Your task to perform on an android device: What's the news about the US economy? Image 0: 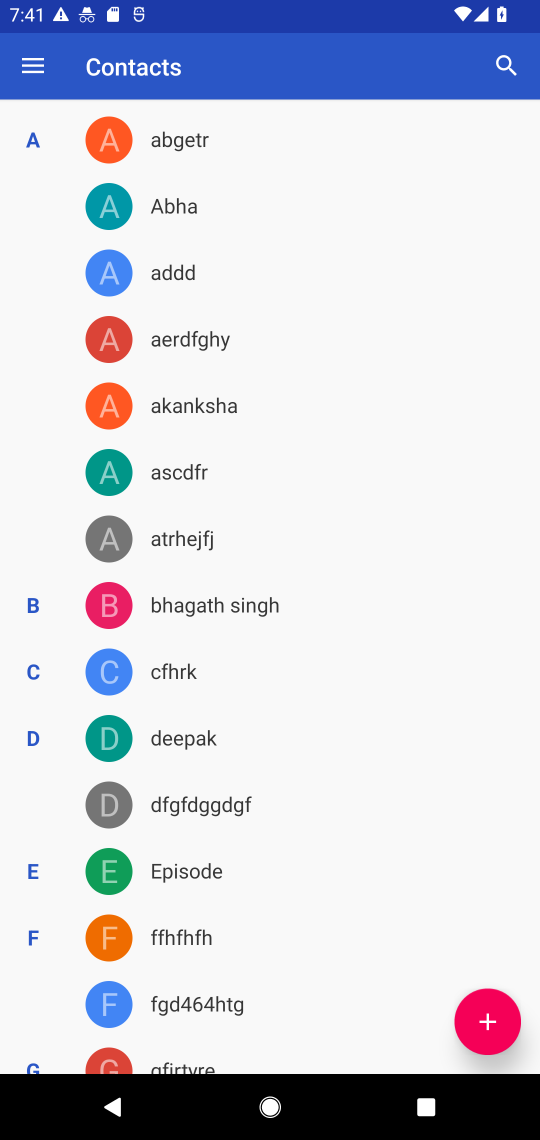
Step 0: press home button
Your task to perform on an android device: What's the news about the US economy? Image 1: 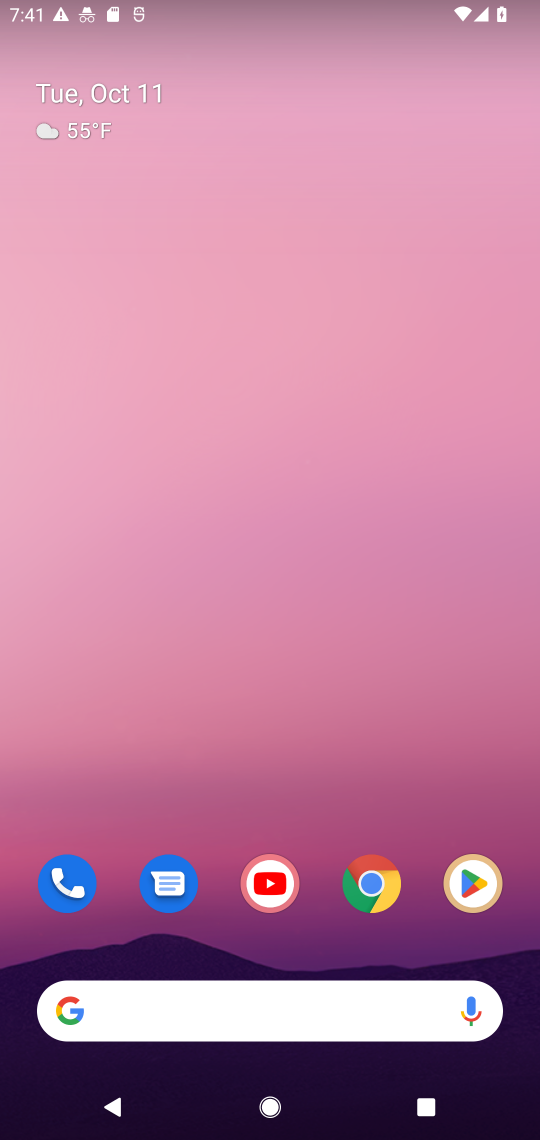
Step 1: drag from (322, 944) to (331, 164)
Your task to perform on an android device: What's the news about the US economy? Image 2: 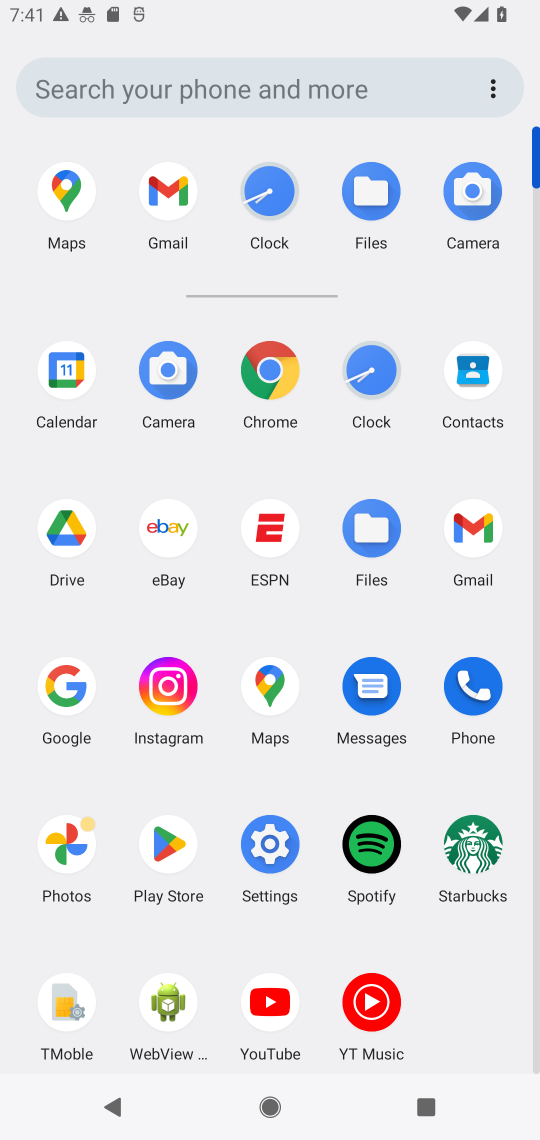
Step 2: click (274, 376)
Your task to perform on an android device: What's the news about the US economy? Image 3: 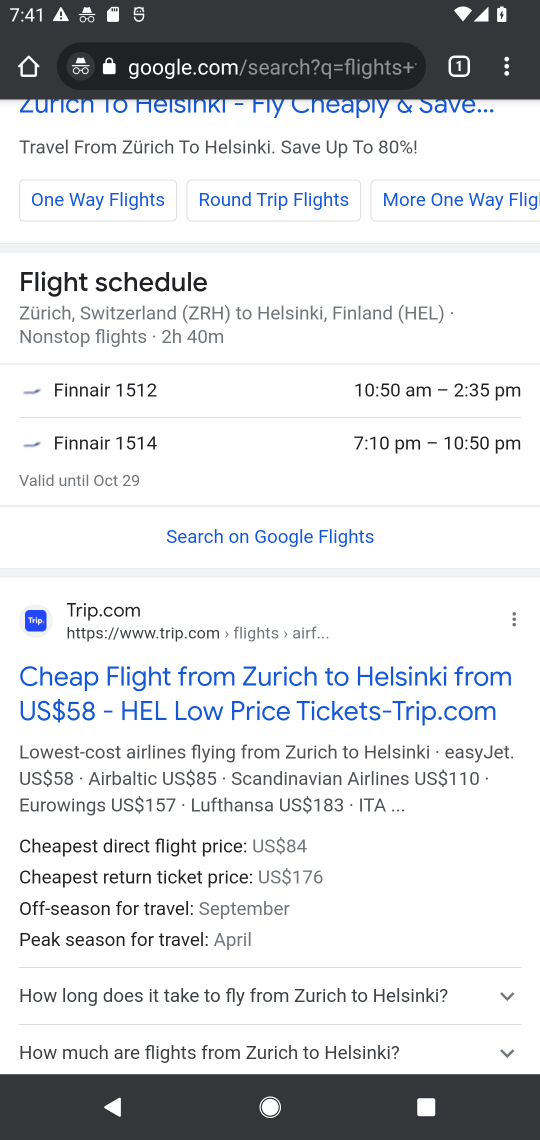
Step 3: click (230, 80)
Your task to perform on an android device: What's the news about the US economy? Image 4: 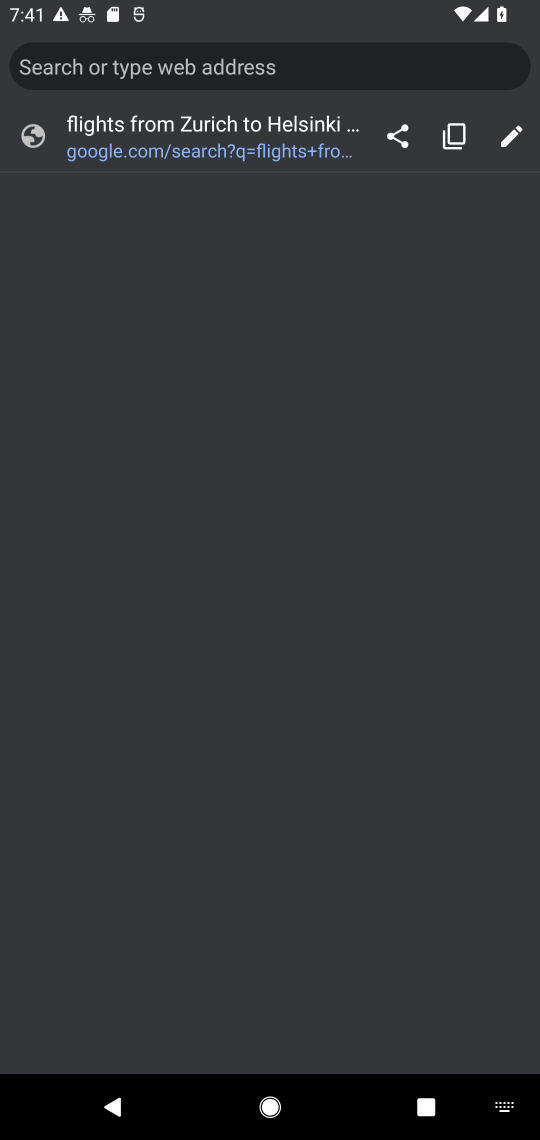
Step 4: type "What's the news about the US economy?"
Your task to perform on an android device: What's the news about the US economy? Image 5: 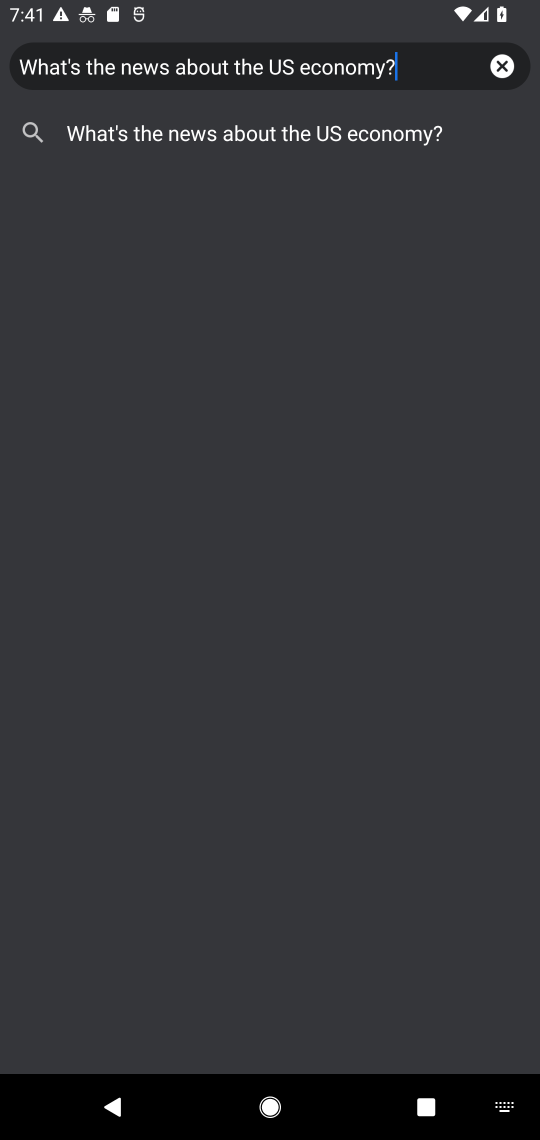
Step 5: press enter
Your task to perform on an android device: What's the news about the US economy? Image 6: 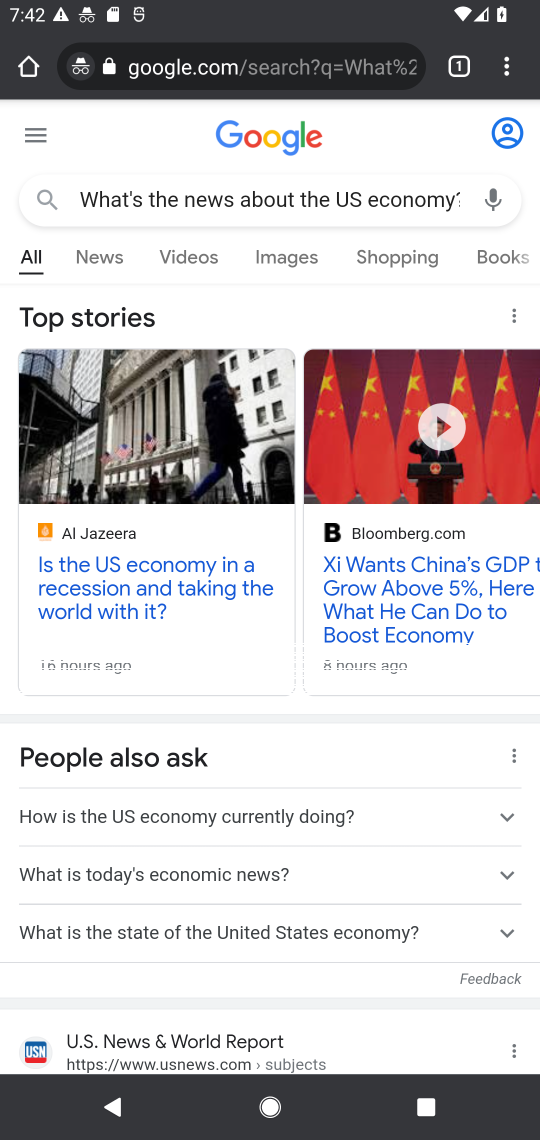
Step 6: drag from (255, 862) to (281, 259)
Your task to perform on an android device: What's the news about the US economy? Image 7: 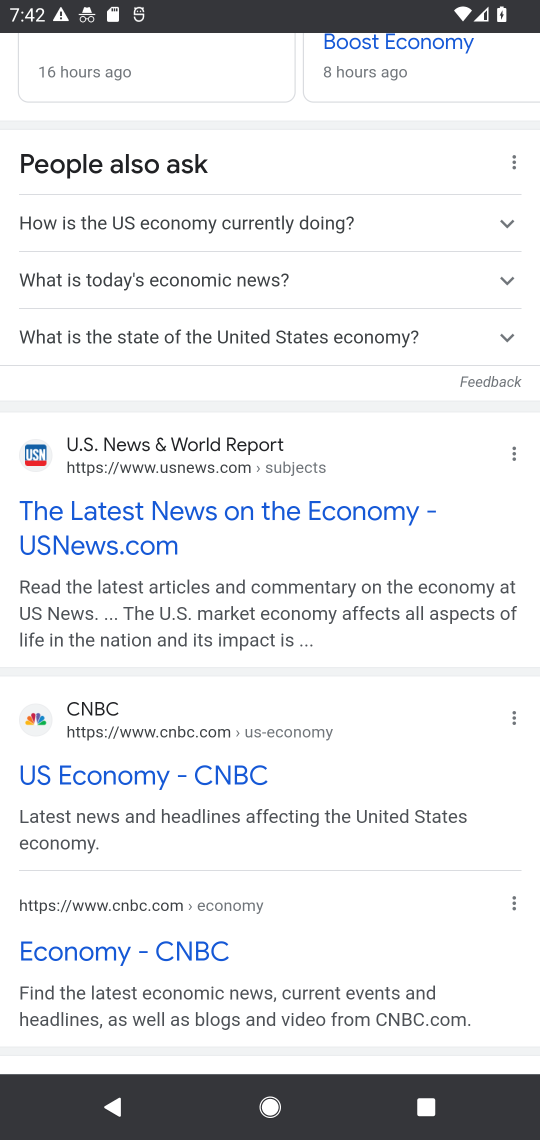
Step 7: click (158, 521)
Your task to perform on an android device: What's the news about the US economy? Image 8: 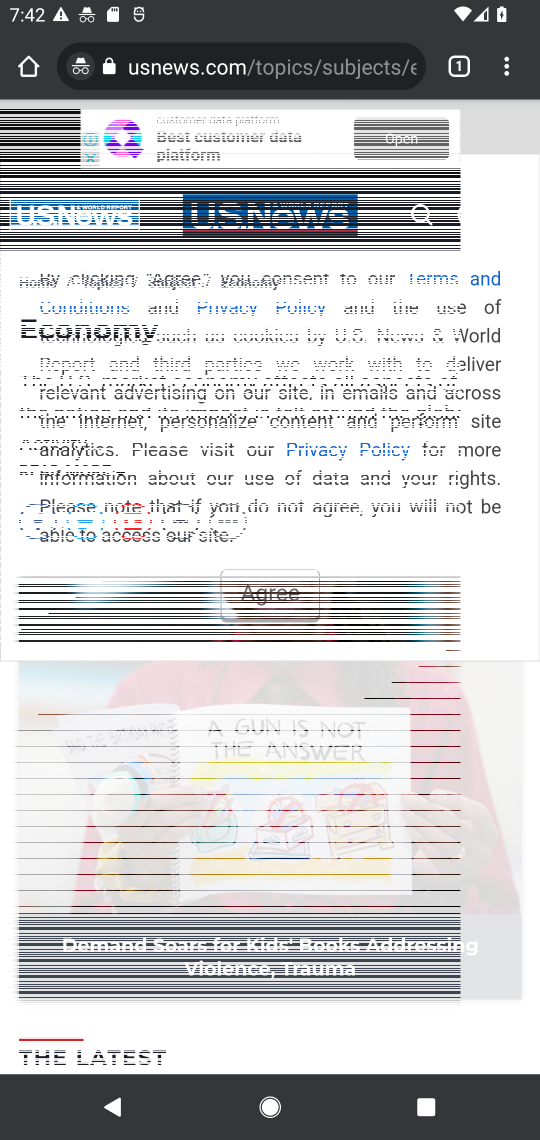
Step 8: drag from (200, 918) to (258, 291)
Your task to perform on an android device: What's the news about the US economy? Image 9: 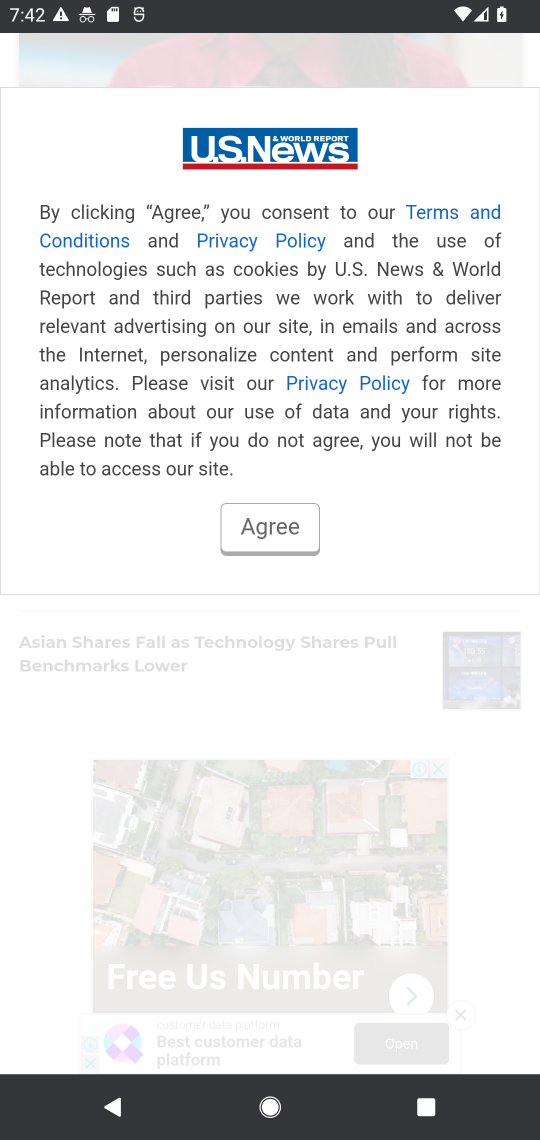
Step 9: drag from (316, 656) to (320, 277)
Your task to perform on an android device: What's the news about the US economy? Image 10: 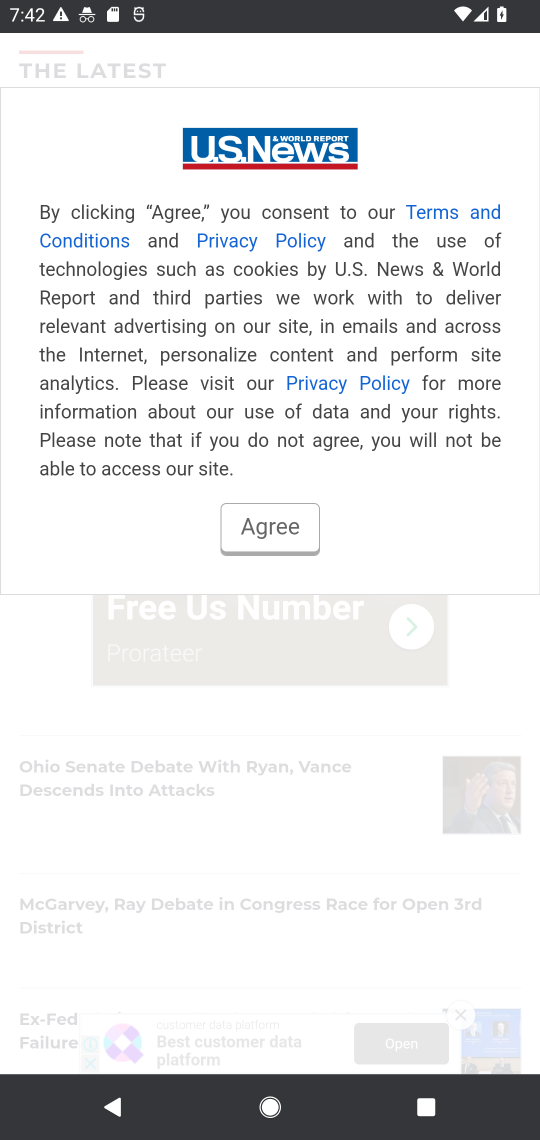
Step 10: click (277, 498)
Your task to perform on an android device: What's the news about the US economy? Image 11: 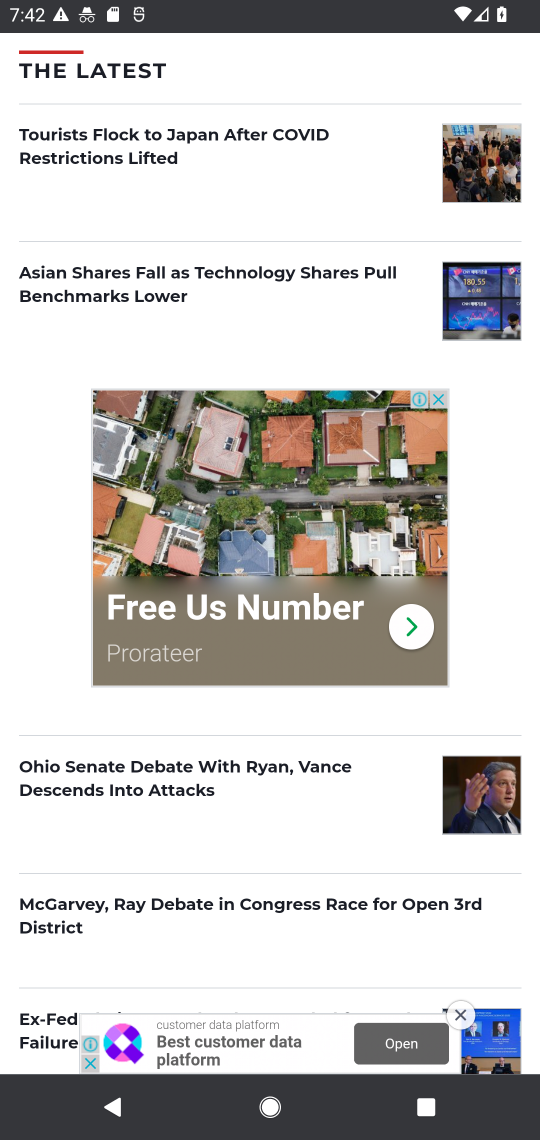
Step 11: task complete